Your task to perform on an android device: turn off improve location accuracy Image 0: 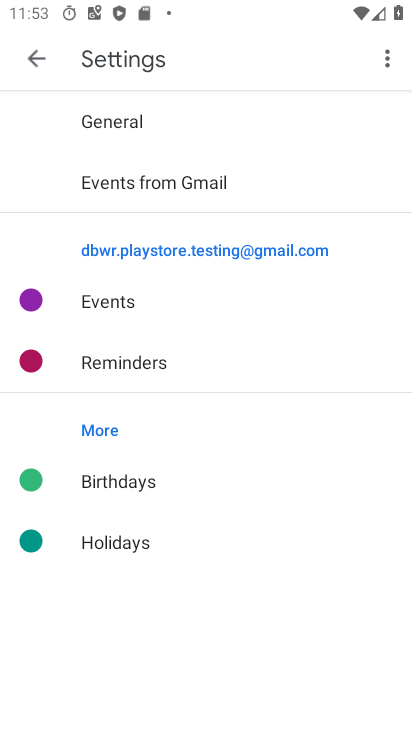
Step 0: press home button
Your task to perform on an android device: turn off improve location accuracy Image 1: 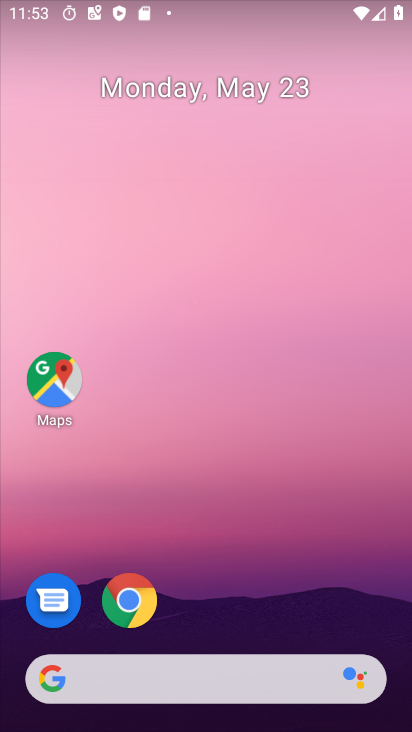
Step 1: drag from (297, 562) to (213, 92)
Your task to perform on an android device: turn off improve location accuracy Image 2: 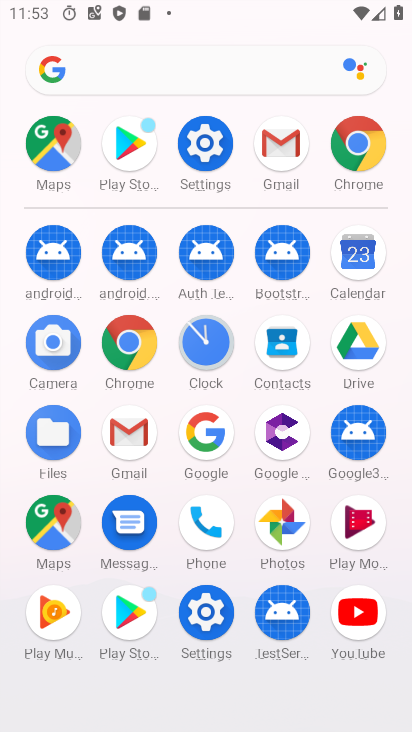
Step 2: click (206, 145)
Your task to perform on an android device: turn off improve location accuracy Image 3: 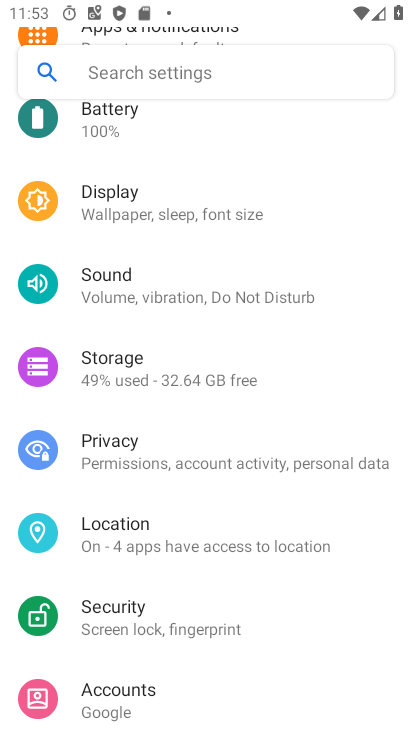
Step 3: click (172, 529)
Your task to perform on an android device: turn off improve location accuracy Image 4: 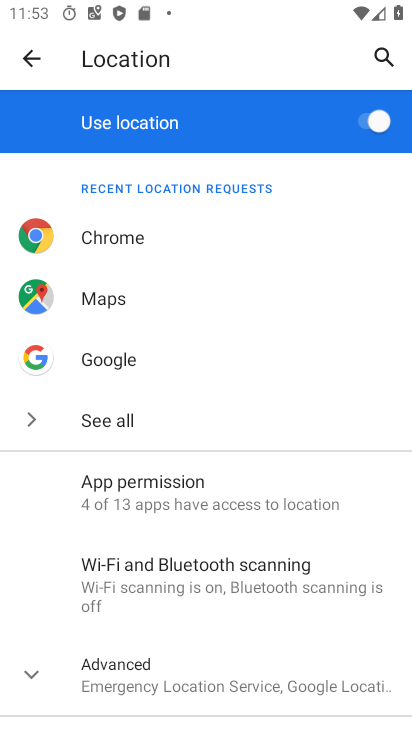
Step 4: drag from (210, 641) to (265, 260)
Your task to perform on an android device: turn off improve location accuracy Image 5: 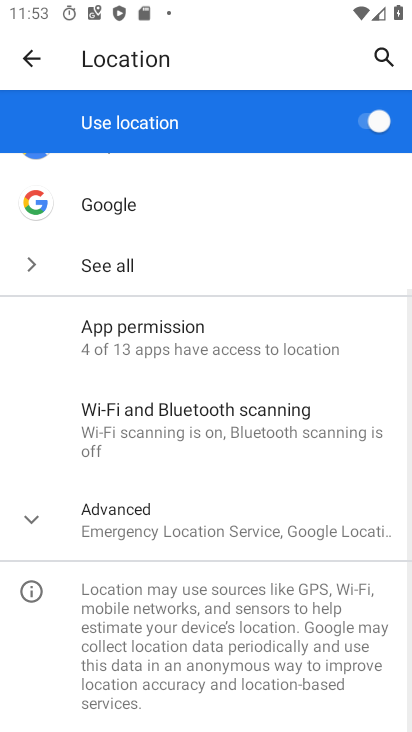
Step 5: click (204, 501)
Your task to perform on an android device: turn off improve location accuracy Image 6: 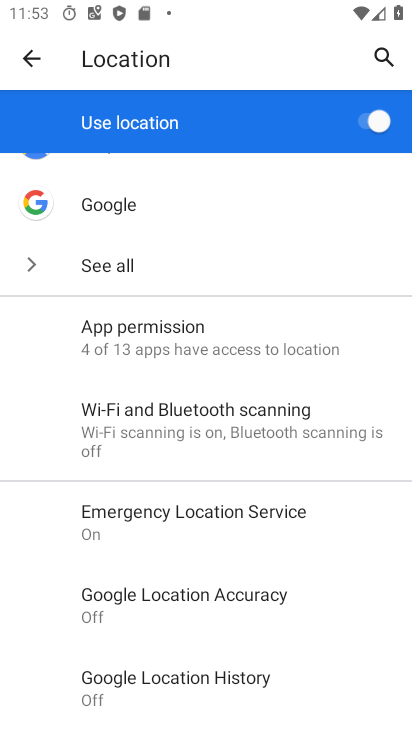
Step 6: click (238, 605)
Your task to perform on an android device: turn off improve location accuracy Image 7: 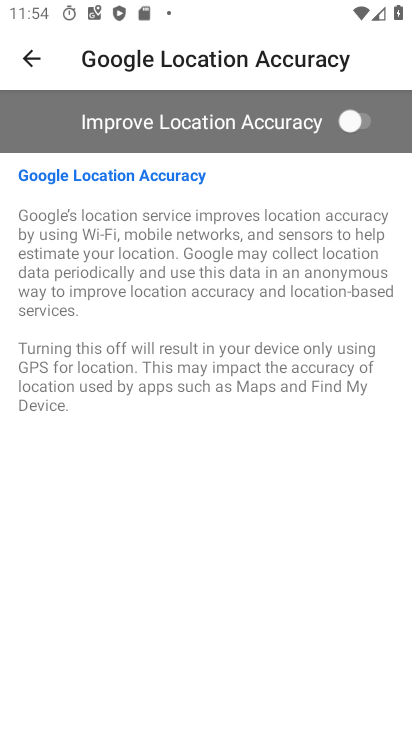
Step 7: task complete